Your task to perform on an android device: stop showing notifications on the lock screen Image 0: 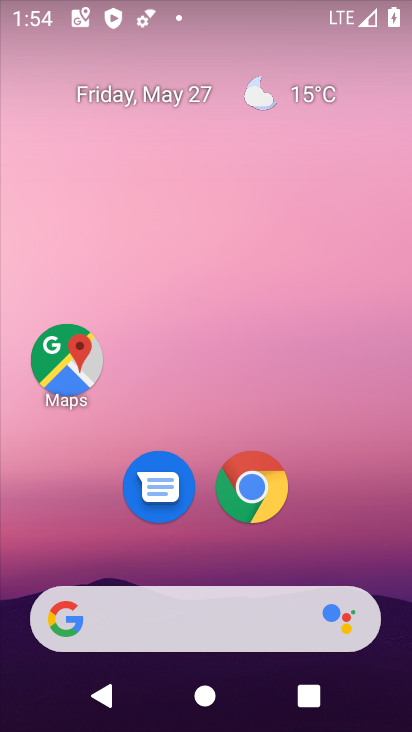
Step 0: drag from (351, 482) to (228, 16)
Your task to perform on an android device: stop showing notifications on the lock screen Image 1: 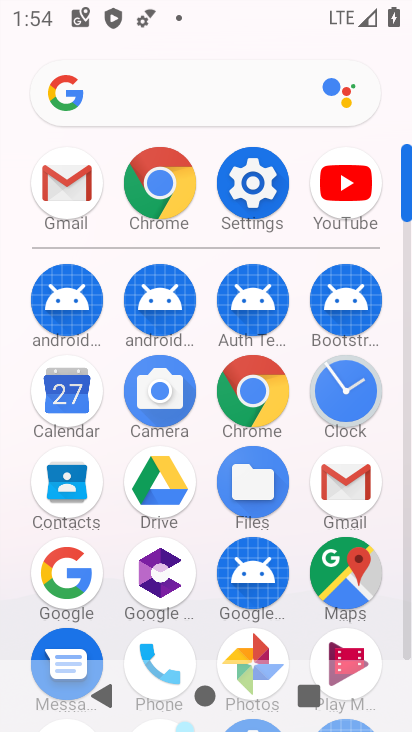
Step 1: click (259, 184)
Your task to perform on an android device: stop showing notifications on the lock screen Image 2: 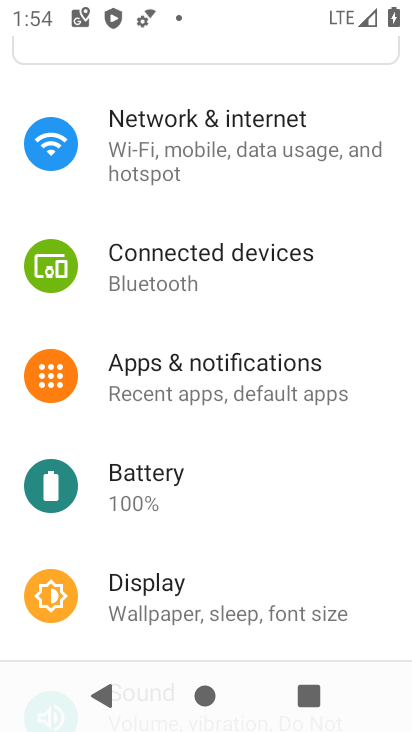
Step 2: click (235, 361)
Your task to perform on an android device: stop showing notifications on the lock screen Image 3: 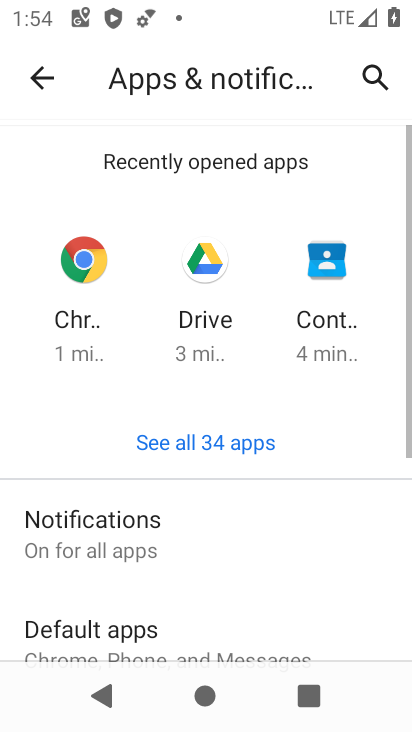
Step 3: click (137, 508)
Your task to perform on an android device: stop showing notifications on the lock screen Image 4: 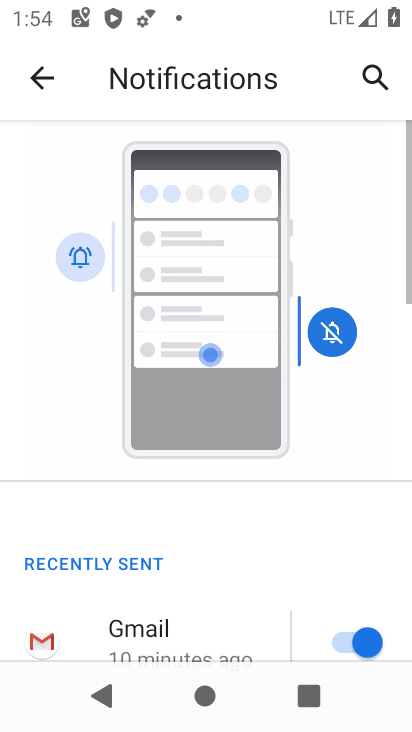
Step 4: drag from (251, 573) to (260, 28)
Your task to perform on an android device: stop showing notifications on the lock screen Image 5: 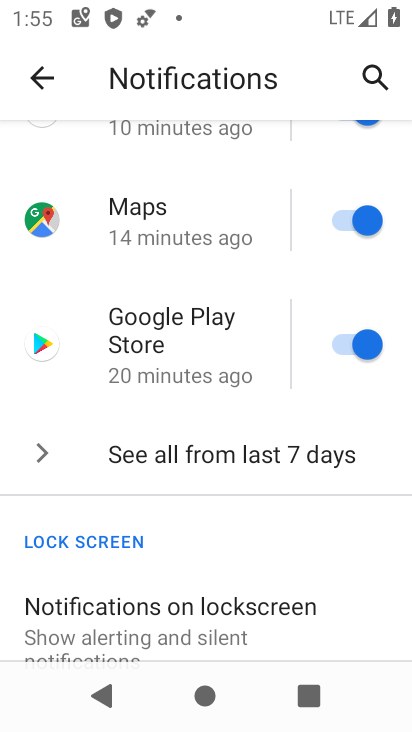
Step 5: drag from (193, 548) to (223, 111)
Your task to perform on an android device: stop showing notifications on the lock screen Image 6: 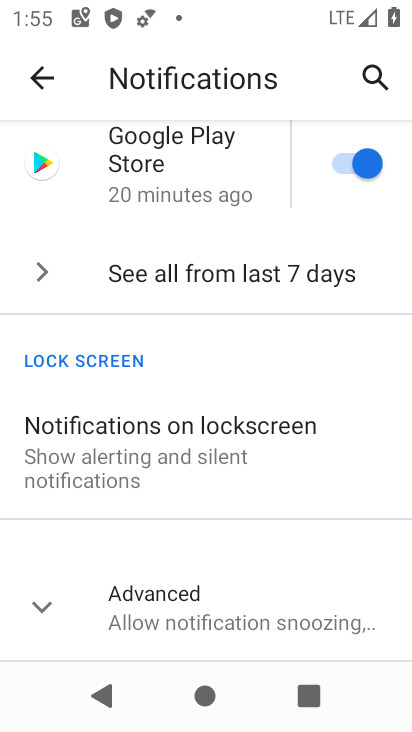
Step 6: click (172, 433)
Your task to perform on an android device: stop showing notifications on the lock screen Image 7: 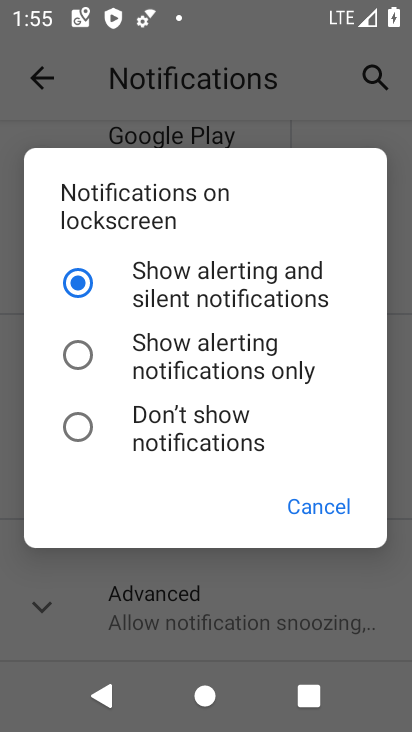
Step 7: click (188, 446)
Your task to perform on an android device: stop showing notifications on the lock screen Image 8: 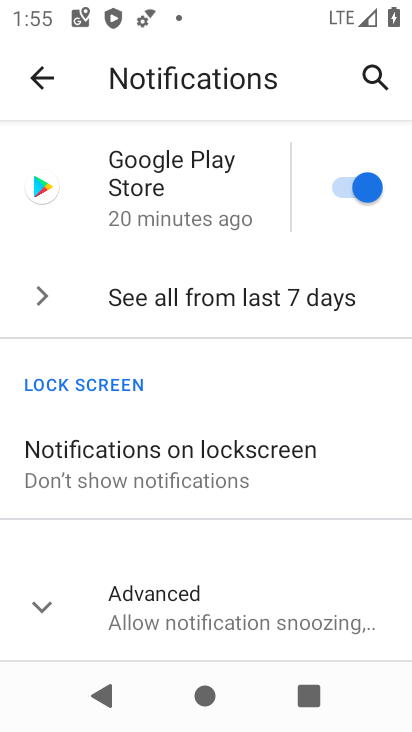
Step 8: task complete